Your task to perform on an android device: change the upload size in google photos Image 0: 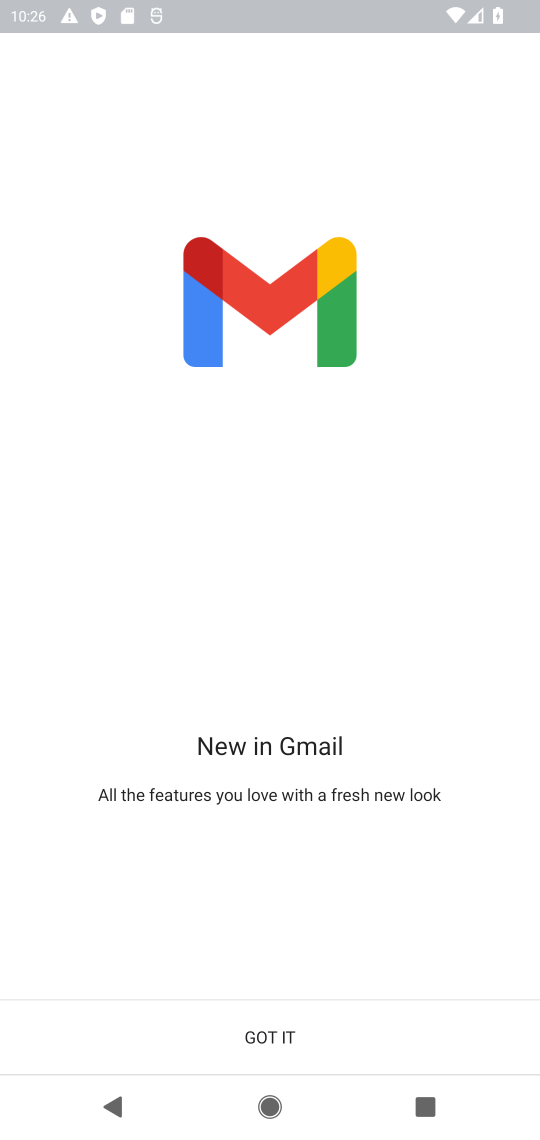
Step 0: press home button
Your task to perform on an android device: change the upload size in google photos Image 1: 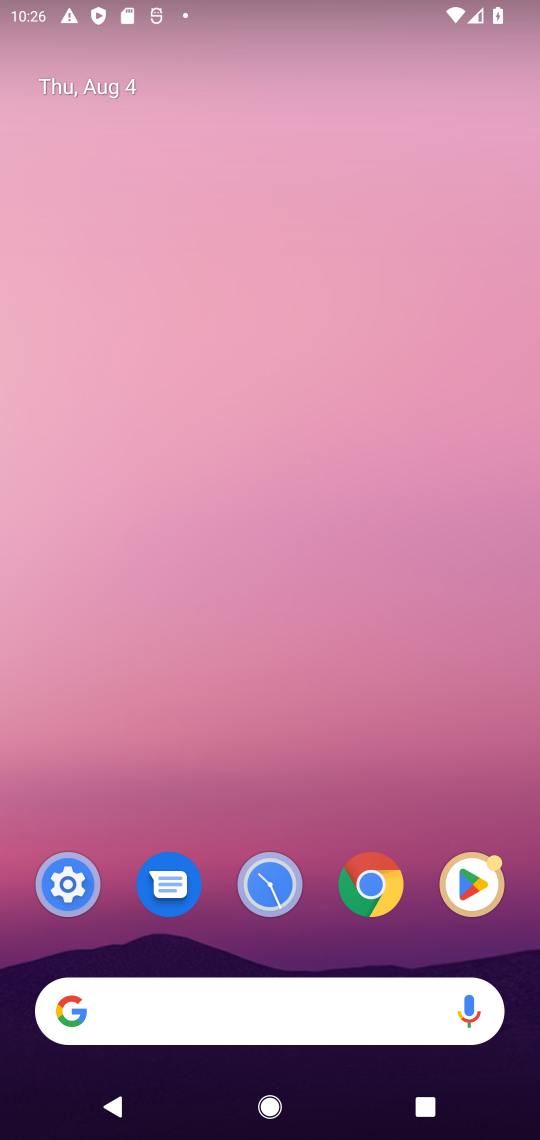
Step 1: drag from (271, 1022) to (261, 82)
Your task to perform on an android device: change the upload size in google photos Image 2: 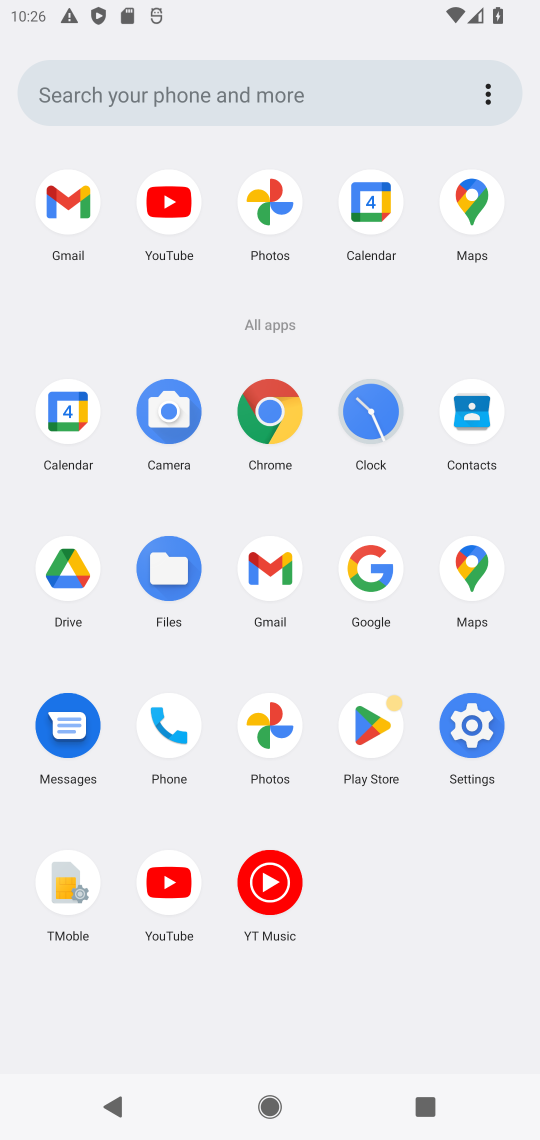
Step 2: click (273, 731)
Your task to perform on an android device: change the upload size in google photos Image 3: 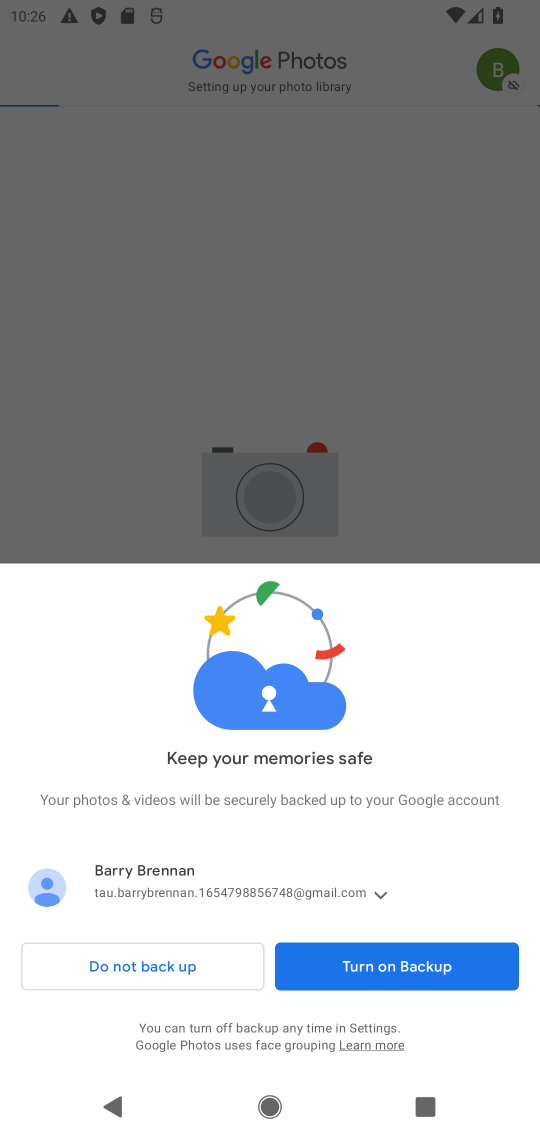
Step 3: click (346, 979)
Your task to perform on an android device: change the upload size in google photos Image 4: 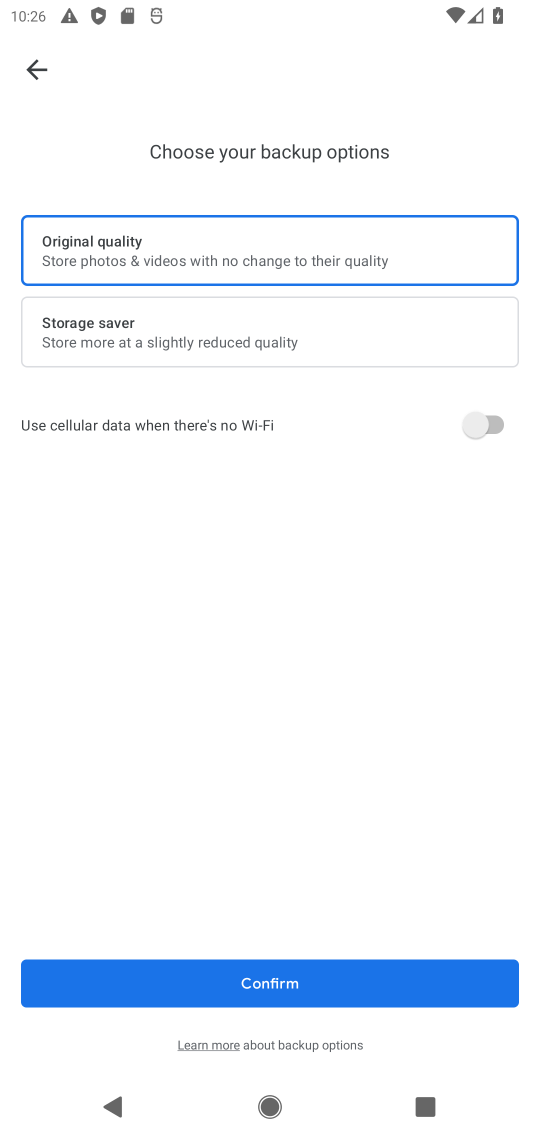
Step 4: click (173, 351)
Your task to perform on an android device: change the upload size in google photos Image 5: 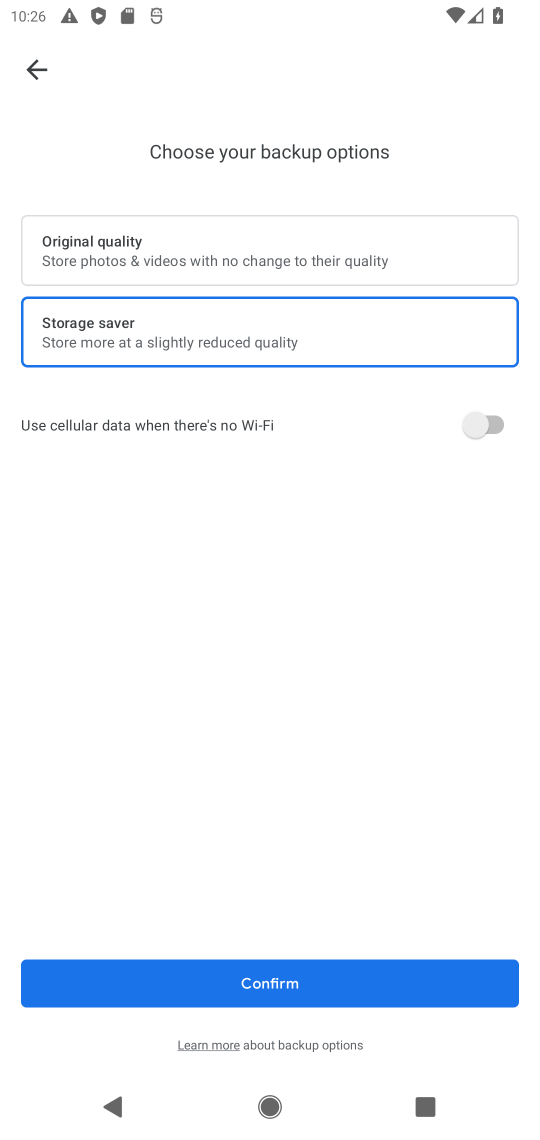
Step 5: click (363, 988)
Your task to perform on an android device: change the upload size in google photos Image 6: 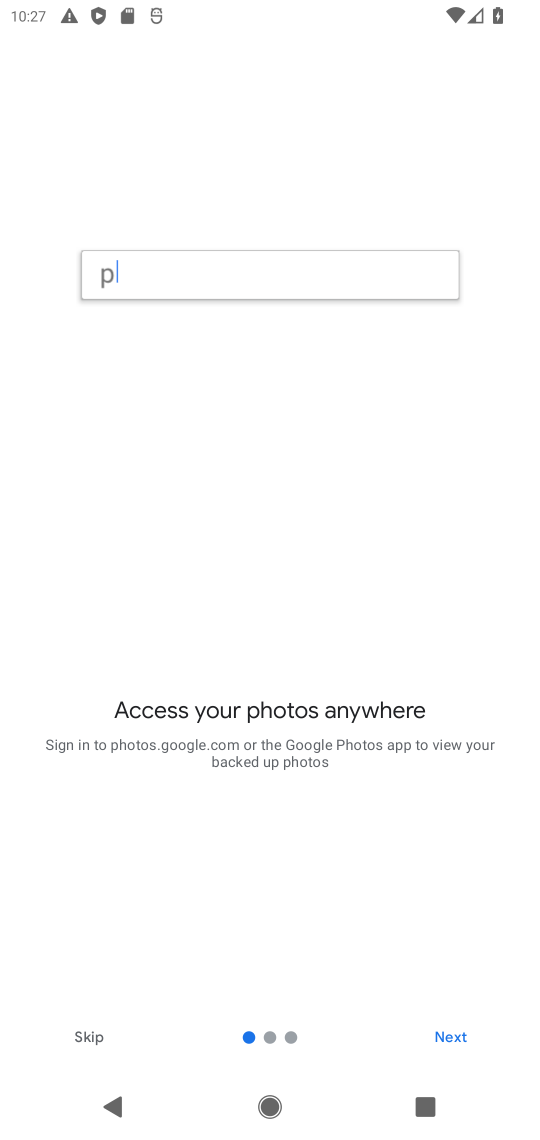
Step 6: task complete